Your task to perform on an android device: find photos in the google photos app Image 0: 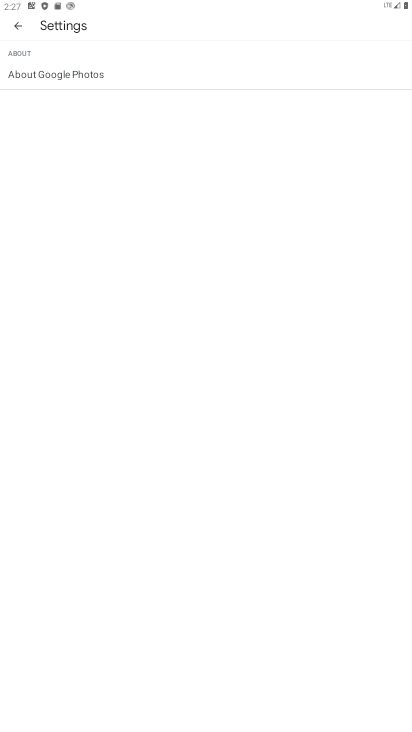
Step 0: drag from (140, 571) to (160, 332)
Your task to perform on an android device: find photos in the google photos app Image 1: 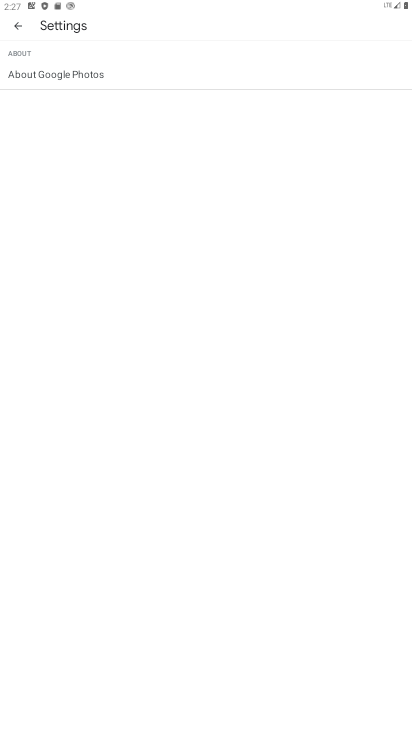
Step 1: drag from (183, 592) to (189, 345)
Your task to perform on an android device: find photos in the google photos app Image 2: 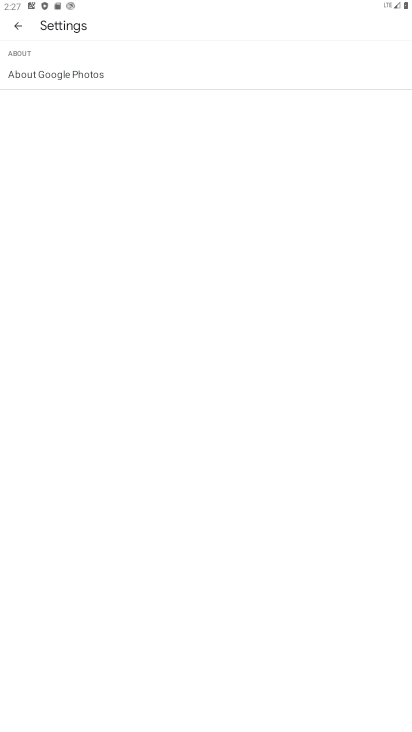
Step 2: press home button
Your task to perform on an android device: find photos in the google photos app Image 3: 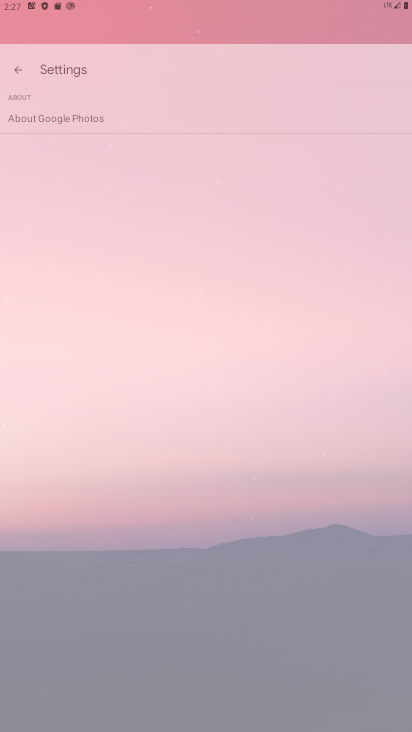
Step 3: drag from (210, 459) to (217, 148)
Your task to perform on an android device: find photos in the google photos app Image 4: 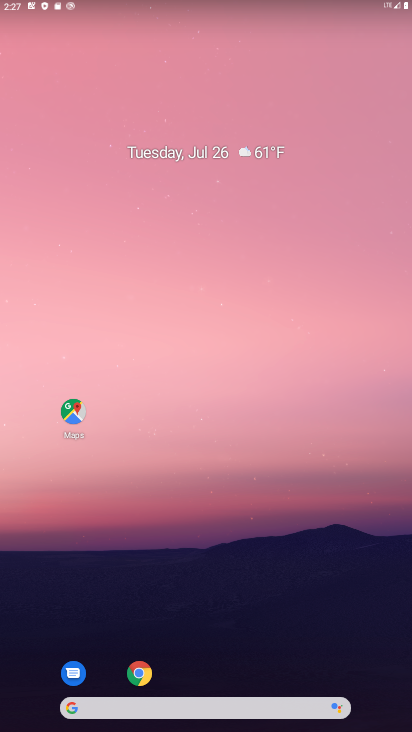
Step 4: drag from (243, 536) to (235, 237)
Your task to perform on an android device: find photos in the google photos app Image 5: 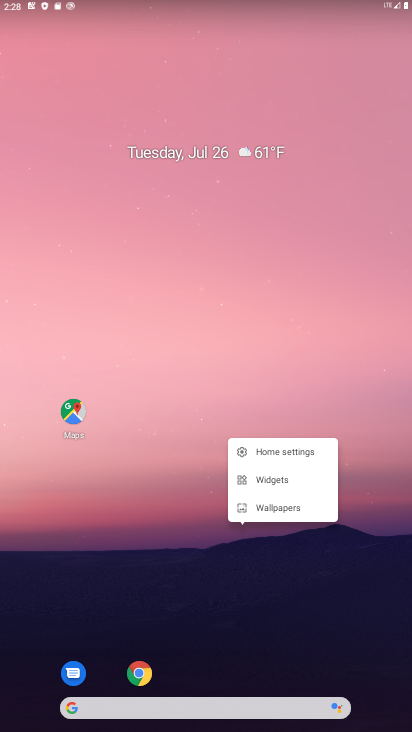
Step 5: drag from (172, 649) to (176, 55)
Your task to perform on an android device: find photos in the google photos app Image 6: 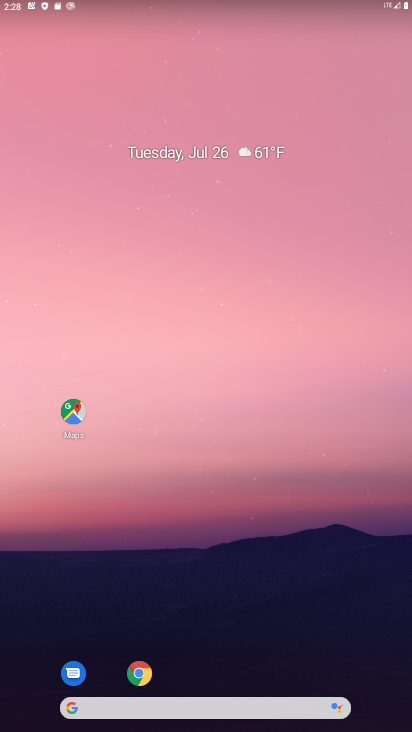
Step 6: drag from (169, 631) to (203, 143)
Your task to perform on an android device: find photos in the google photos app Image 7: 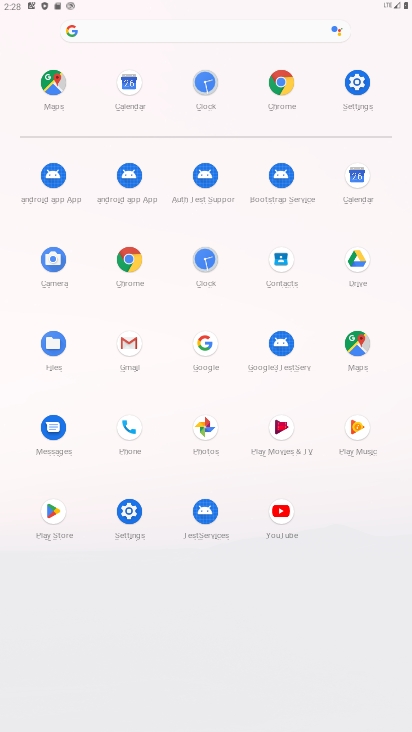
Step 7: click (208, 418)
Your task to perform on an android device: find photos in the google photos app Image 8: 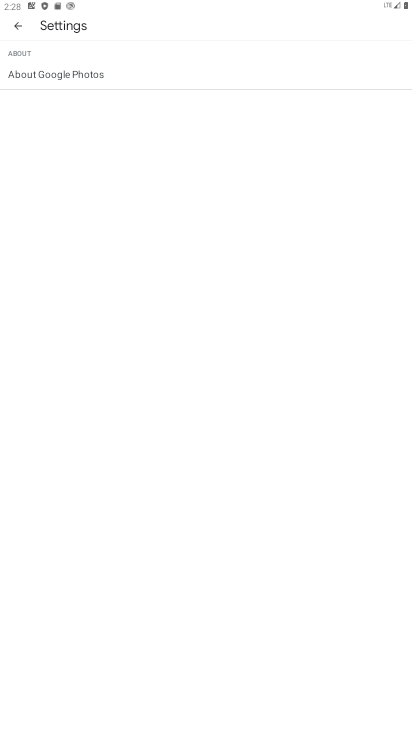
Step 8: drag from (166, 536) to (171, 168)
Your task to perform on an android device: find photos in the google photos app Image 9: 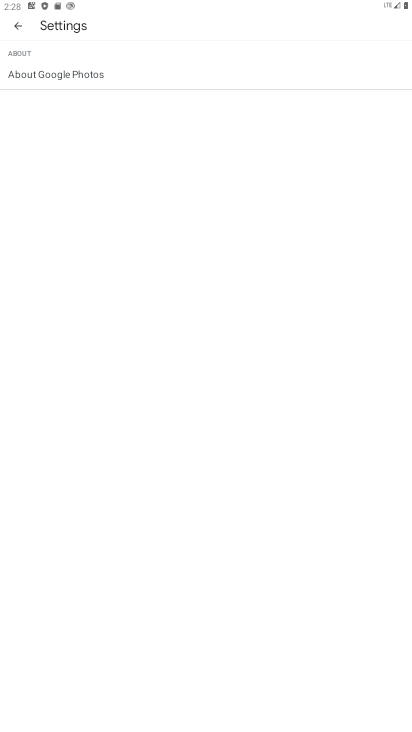
Step 9: drag from (100, 415) to (148, 229)
Your task to perform on an android device: find photos in the google photos app Image 10: 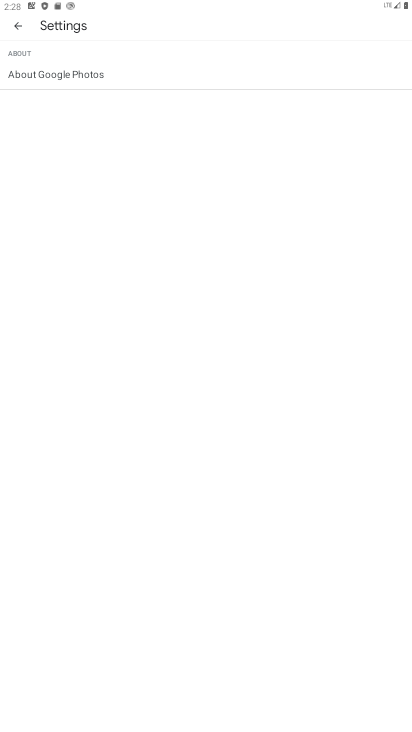
Step 10: click (16, 26)
Your task to perform on an android device: find photos in the google photos app Image 11: 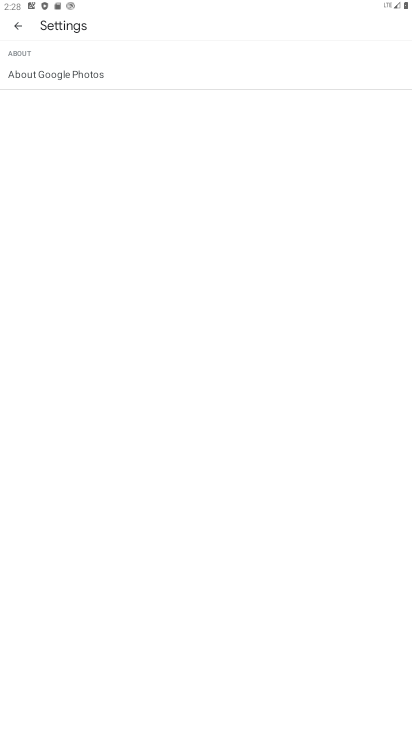
Step 11: task complete